Your task to perform on an android device: Open the web browser Image 0: 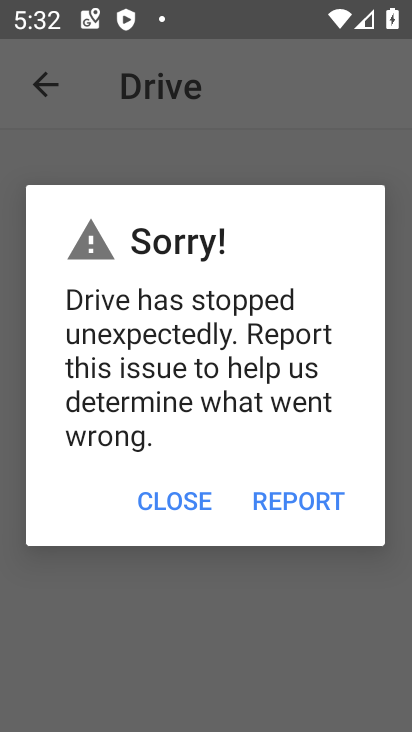
Step 0: press home button
Your task to perform on an android device: Open the web browser Image 1: 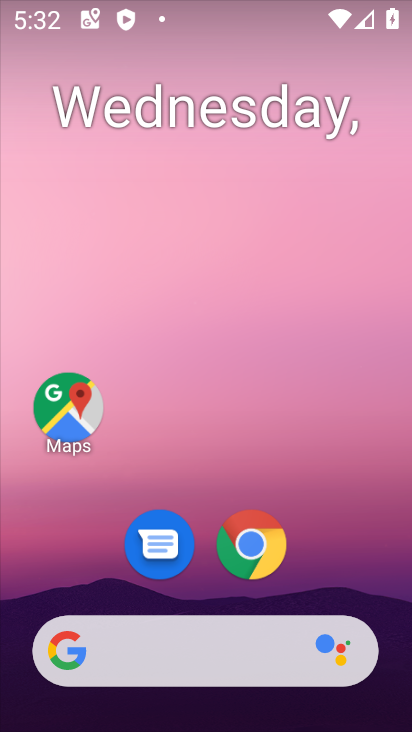
Step 1: click (254, 545)
Your task to perform on an android device: Open the web browser Image 2: 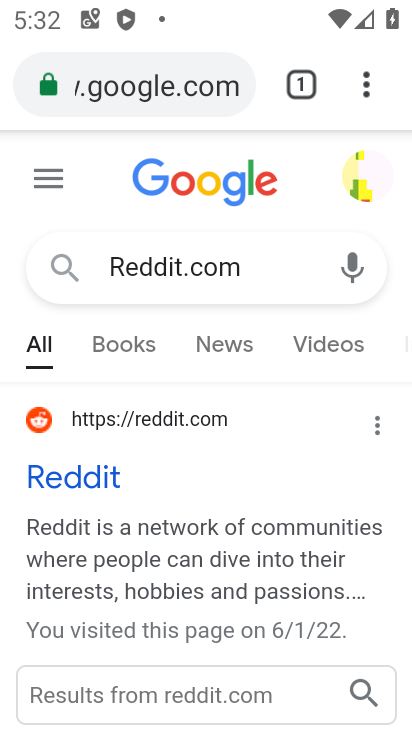
Step 2: task complete